Your task to perform on an android device: open sync settings in chrome Image 0: 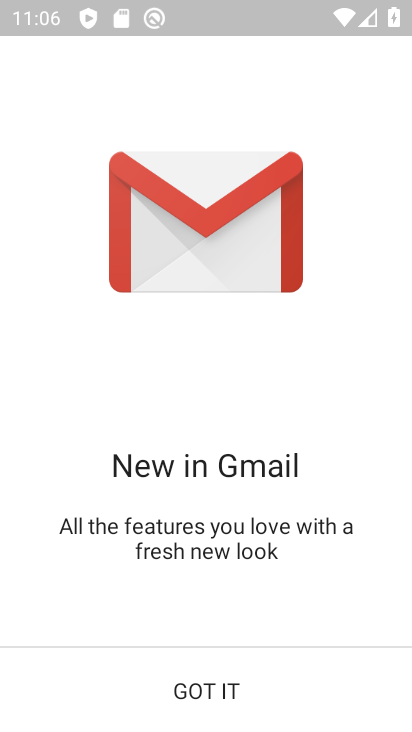
Step 0: press home button
Your task to perform on an android device: open sync settings in chrome Image 1: 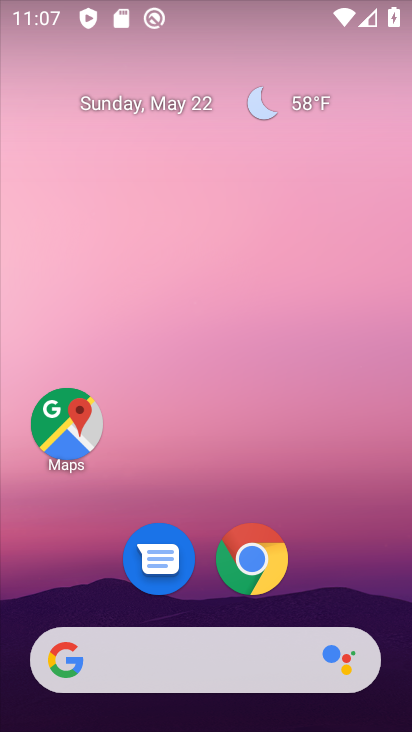
Step 1: click (265, 574)
Your task to perform on an android device: open sync settings in chrome Image 2: 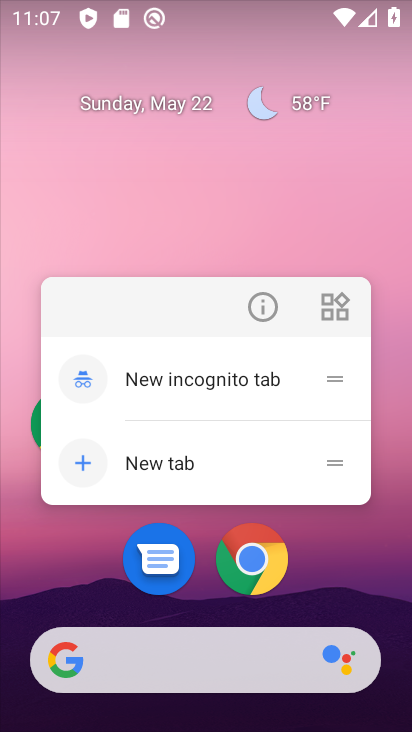
Step 2: click (253, 554)
Your task to perform on an android device: open sync settings in chrome Image 3: 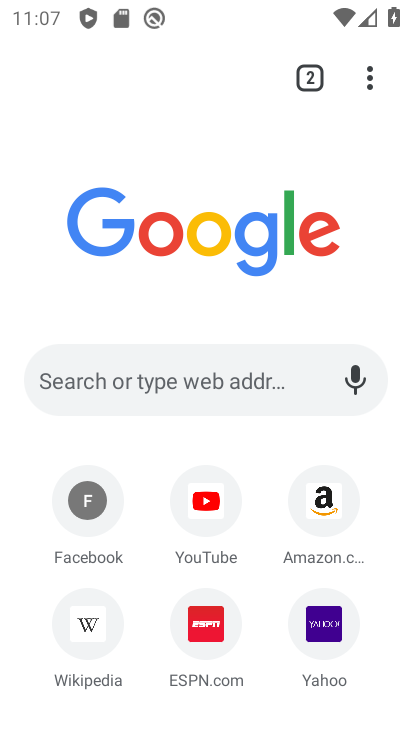
Step 3: drag from (368, 84) to (129, 619)
Your task to perform on an android device: open sync settings in chrome Image 4: 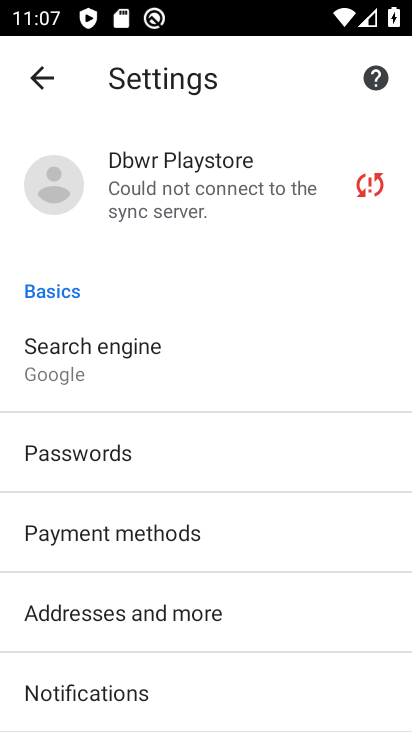
Step 4: click (143, 202)
Your task to perform on an android device: open sync settings in chrome Image 5: 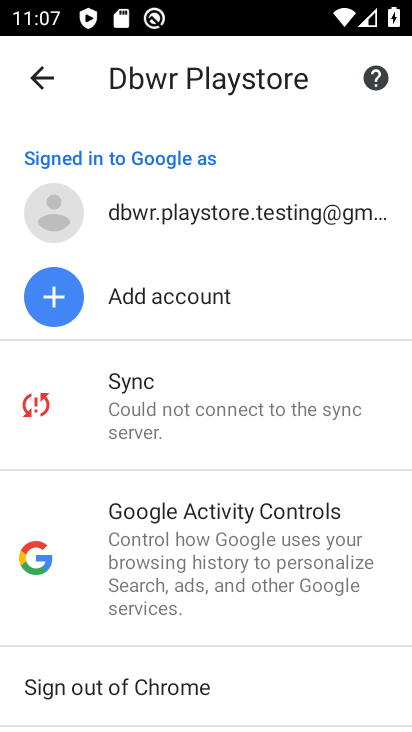
Step 5: click (198, 413)
Your task to perform on an android device: open sync settings in chrome Image 6: 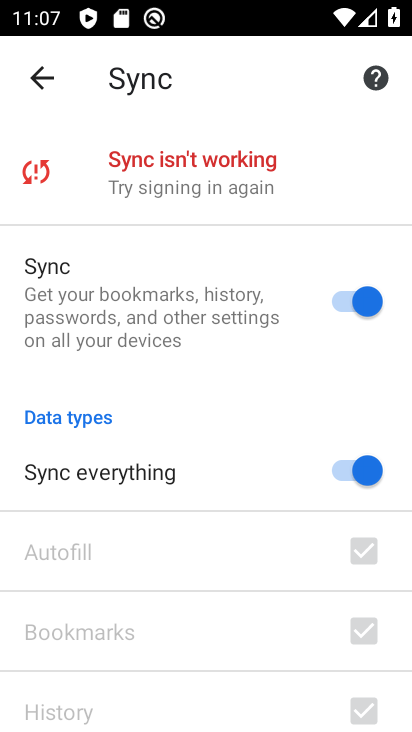
Step 6: task complete